Your task to perform on an android device: Search for flights from NYC to San Diego Image 0: 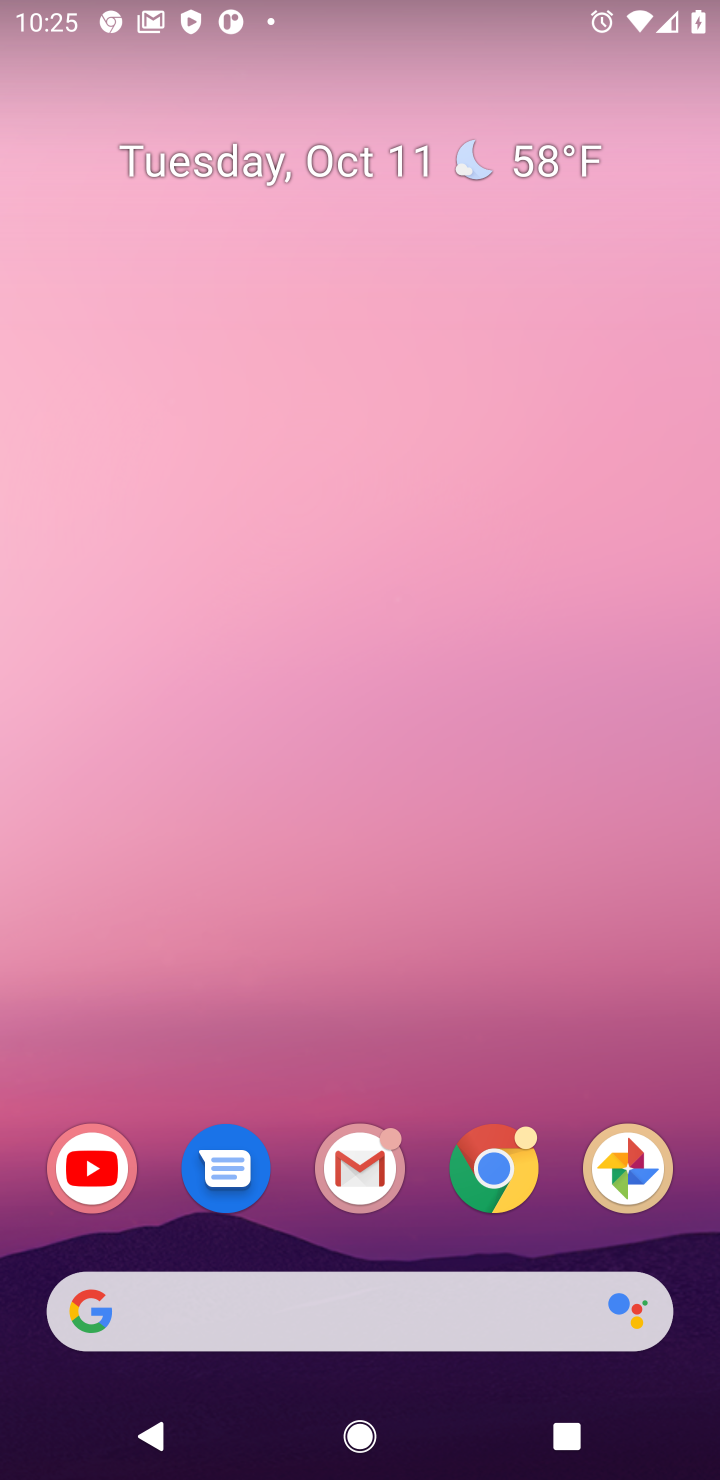
Step 0: click (469, 1188)
Your task to perform on an android device: Search for flights from NYC to San Diego Image 1: 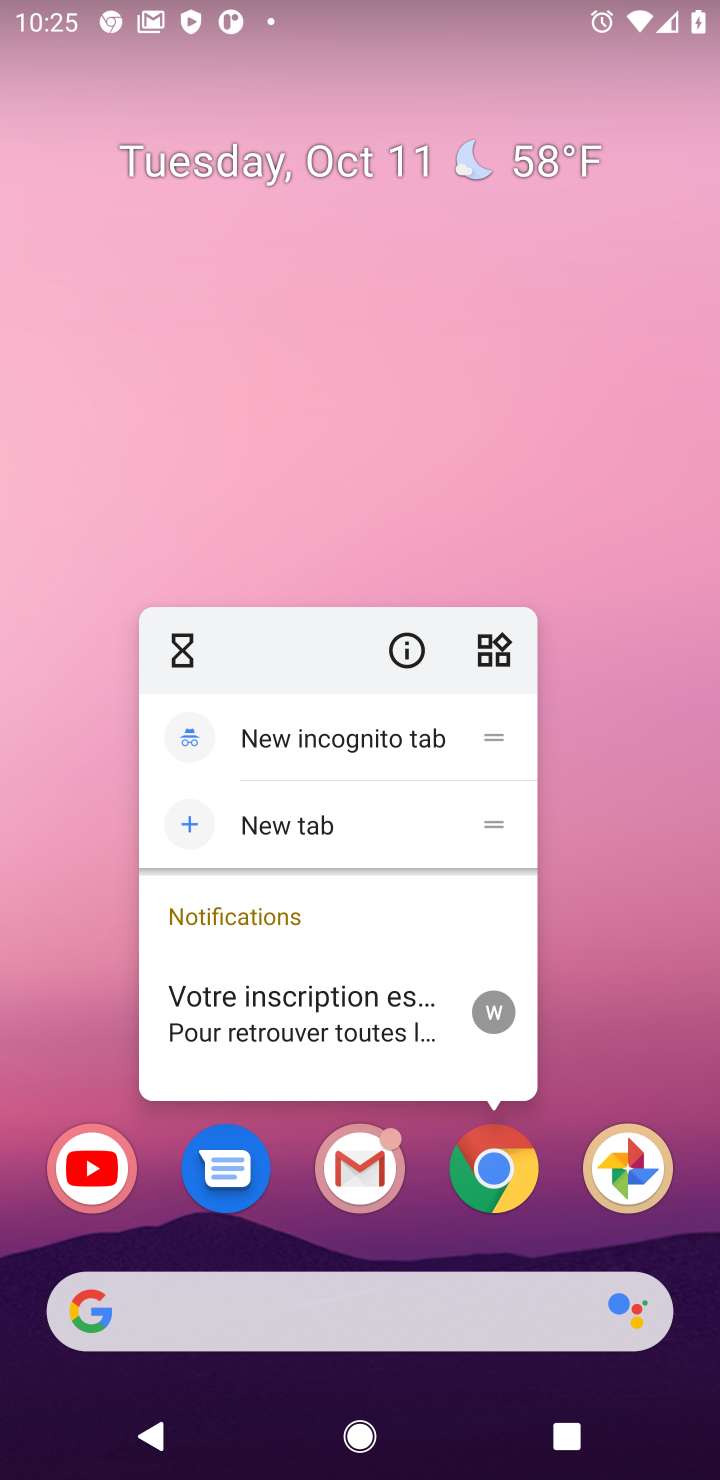
Step 1: press back button
Your task to perform on an android device: Search for flights from NYC to San Diego Image 2: 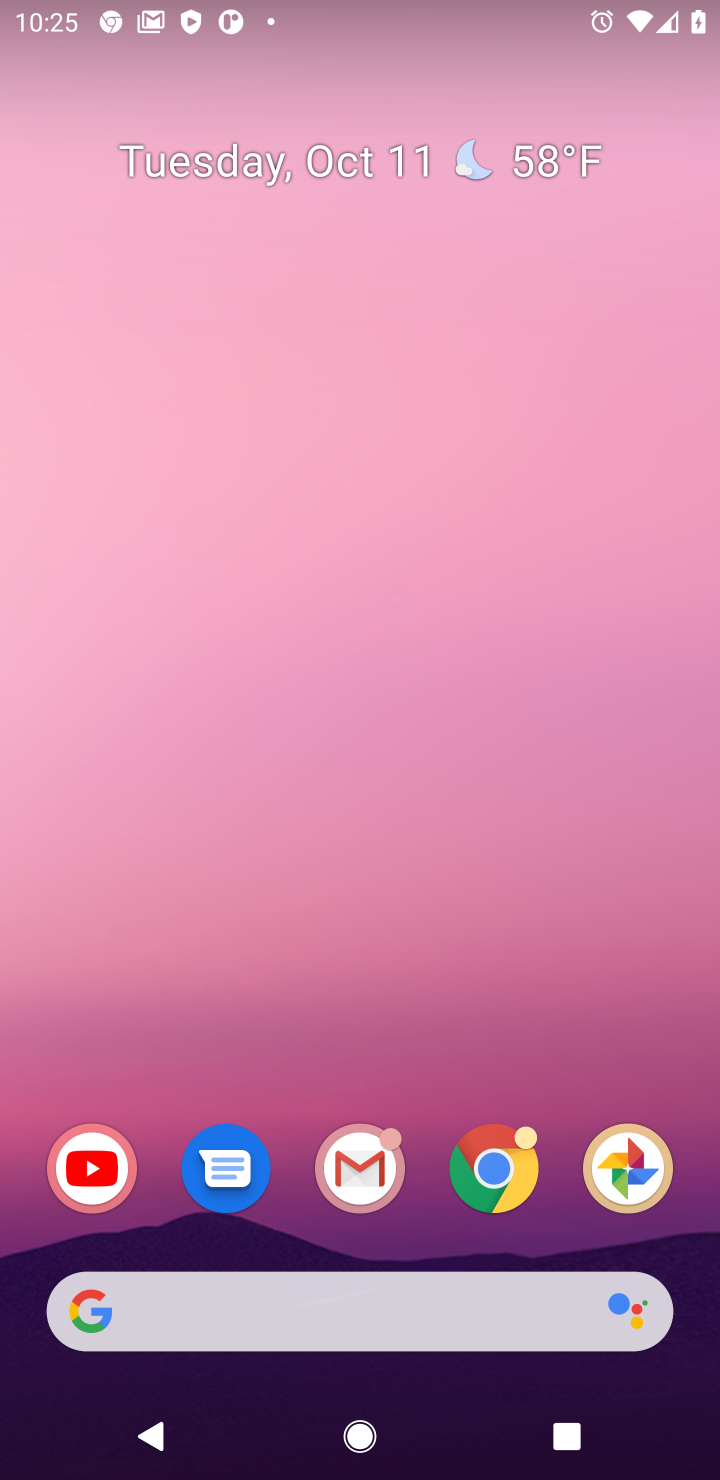
Step 2: press home button
Your task to perform on an android device: Search for flights from NYC to San Diego Image 3: 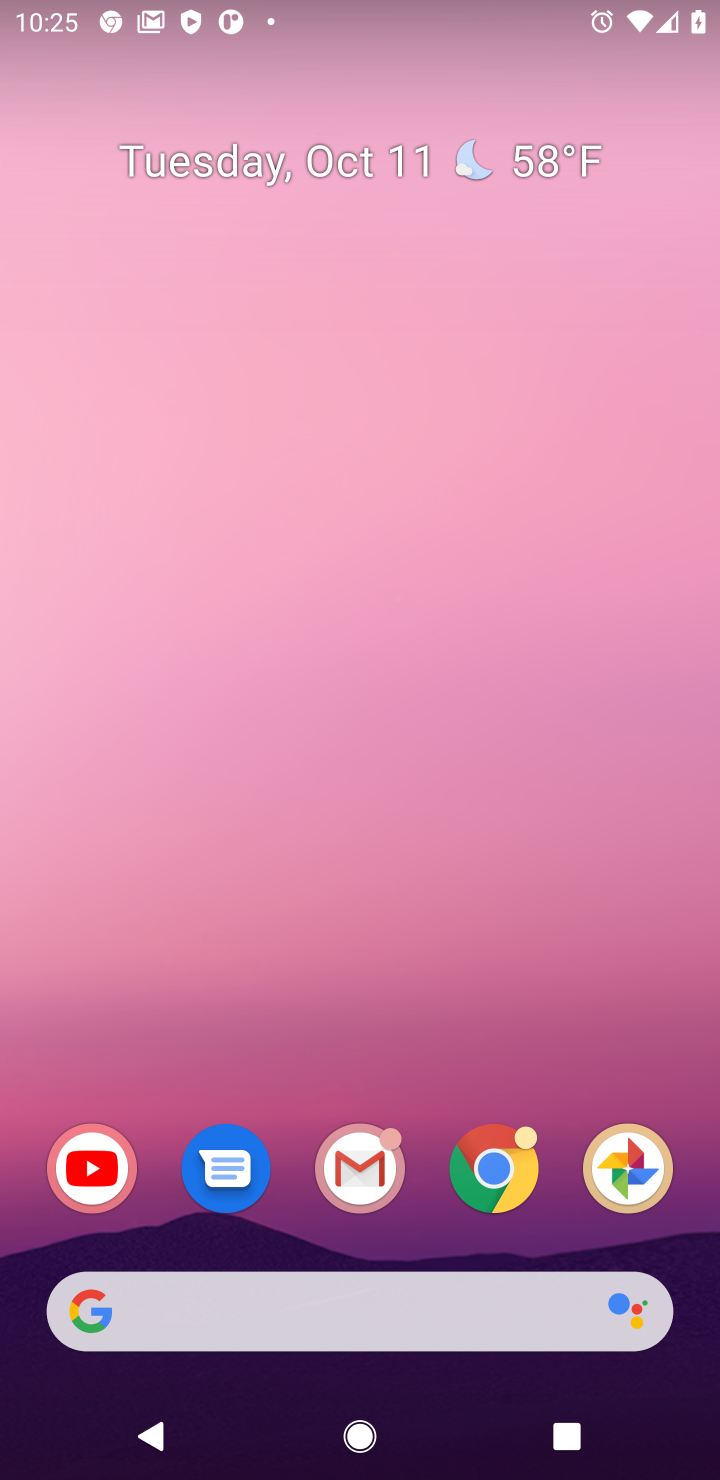
Step 3: click (505, 1198)
Your task to perform on an android device: Search for flights from NYC to San Diego Image 4: 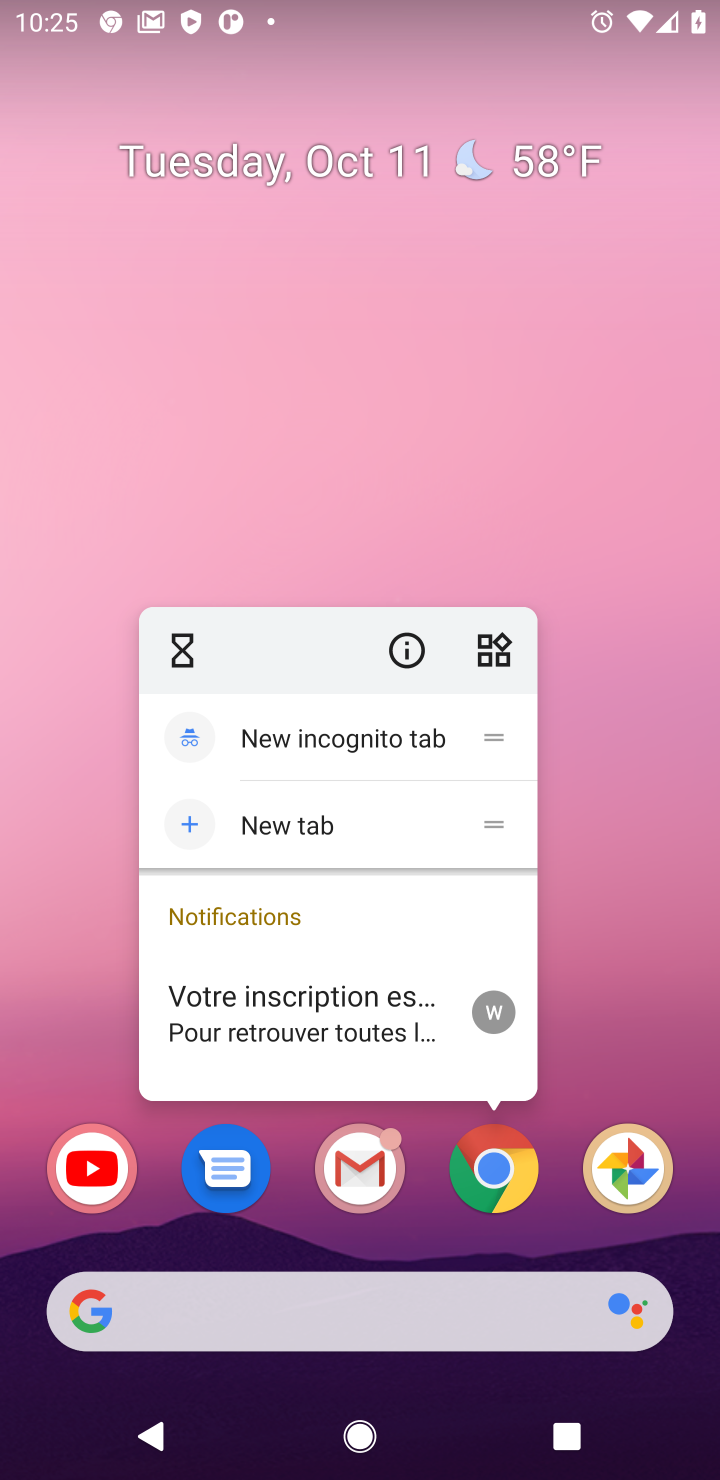
Step 4: click (536, 1136)
Your task to perform on an android device: Search for flights from NYC to San Diego Image 5: 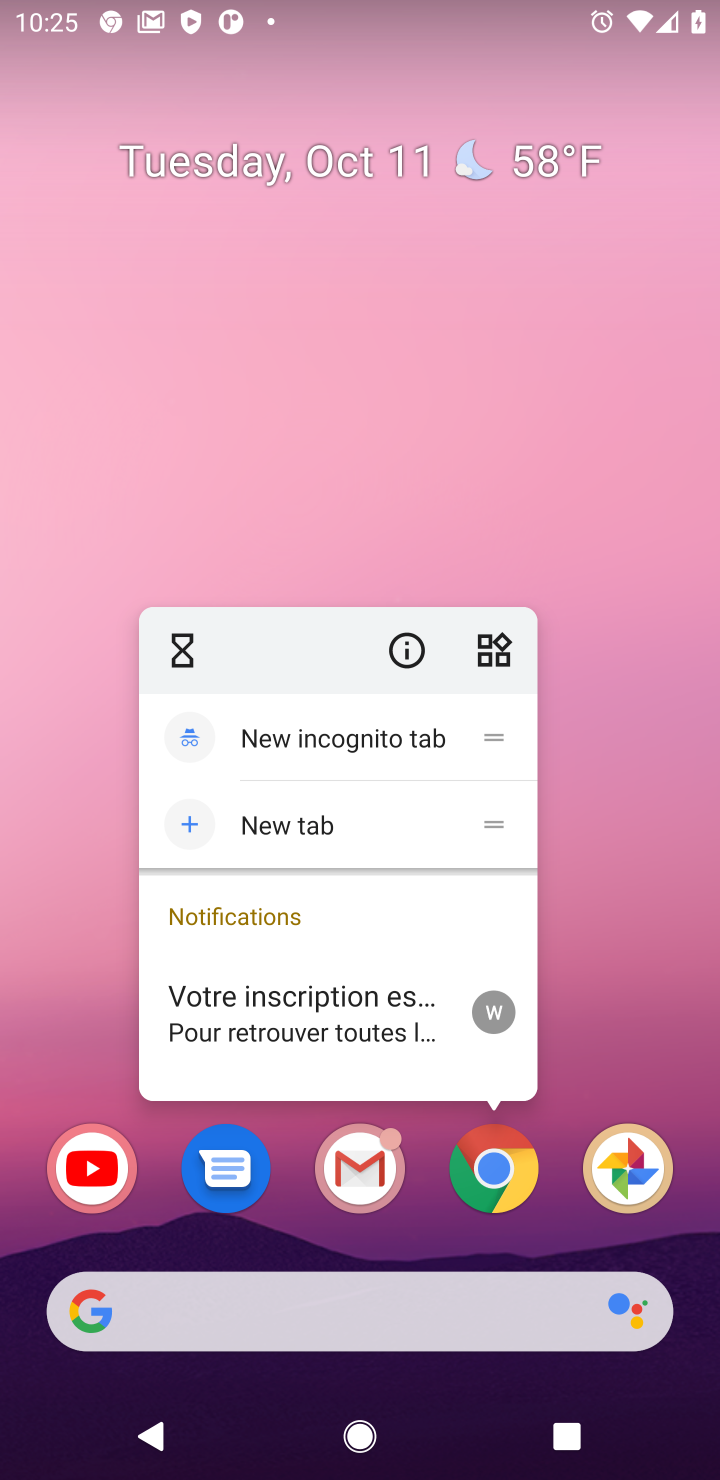
Step 5: press back button
Your task to perform on an android device: Search for flights from NYC to San Diego Image 6: 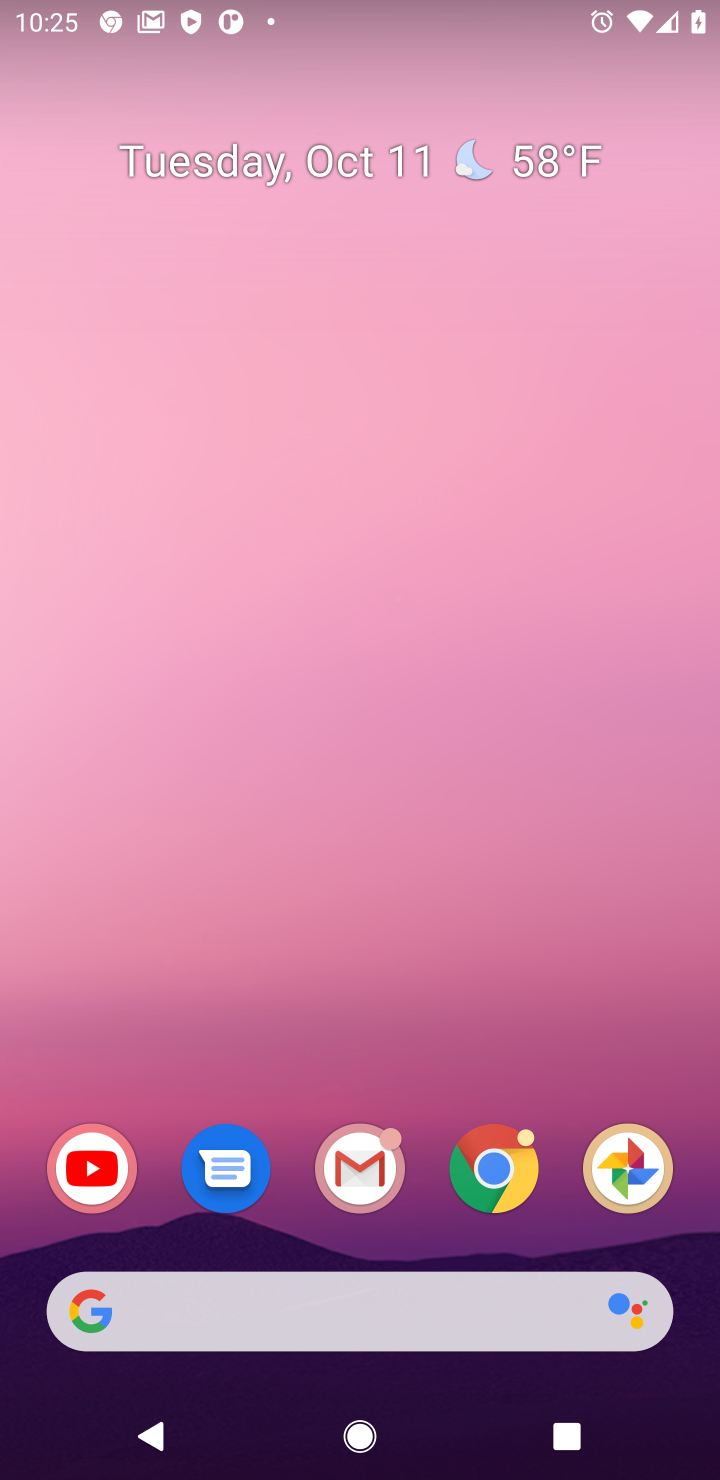
Step 6: press home button
Your task to perform on an android device: Search for flights from NYC to San Diego Image 7: 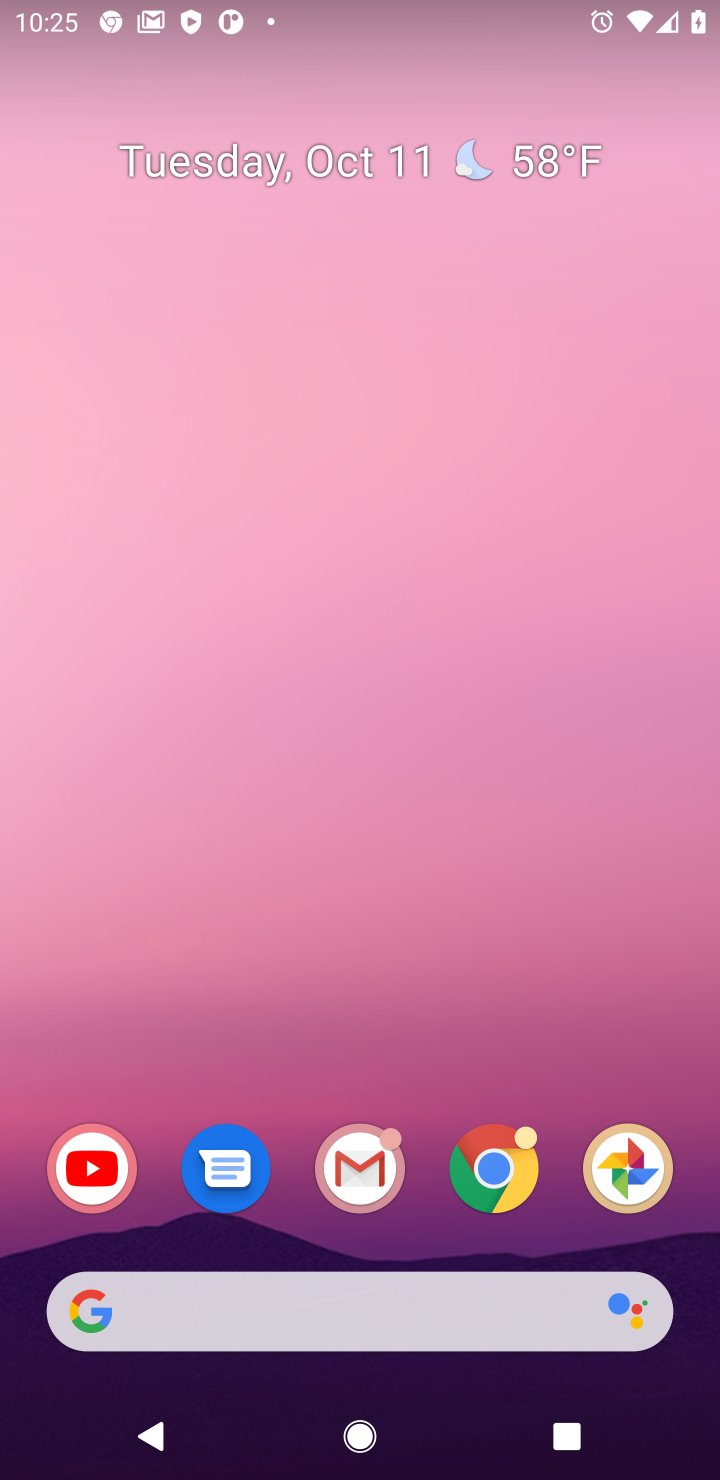
Step 7: click (504, 1174)
Your task to perform on an android device: Search for flights from NYC to San Diego Image 8: 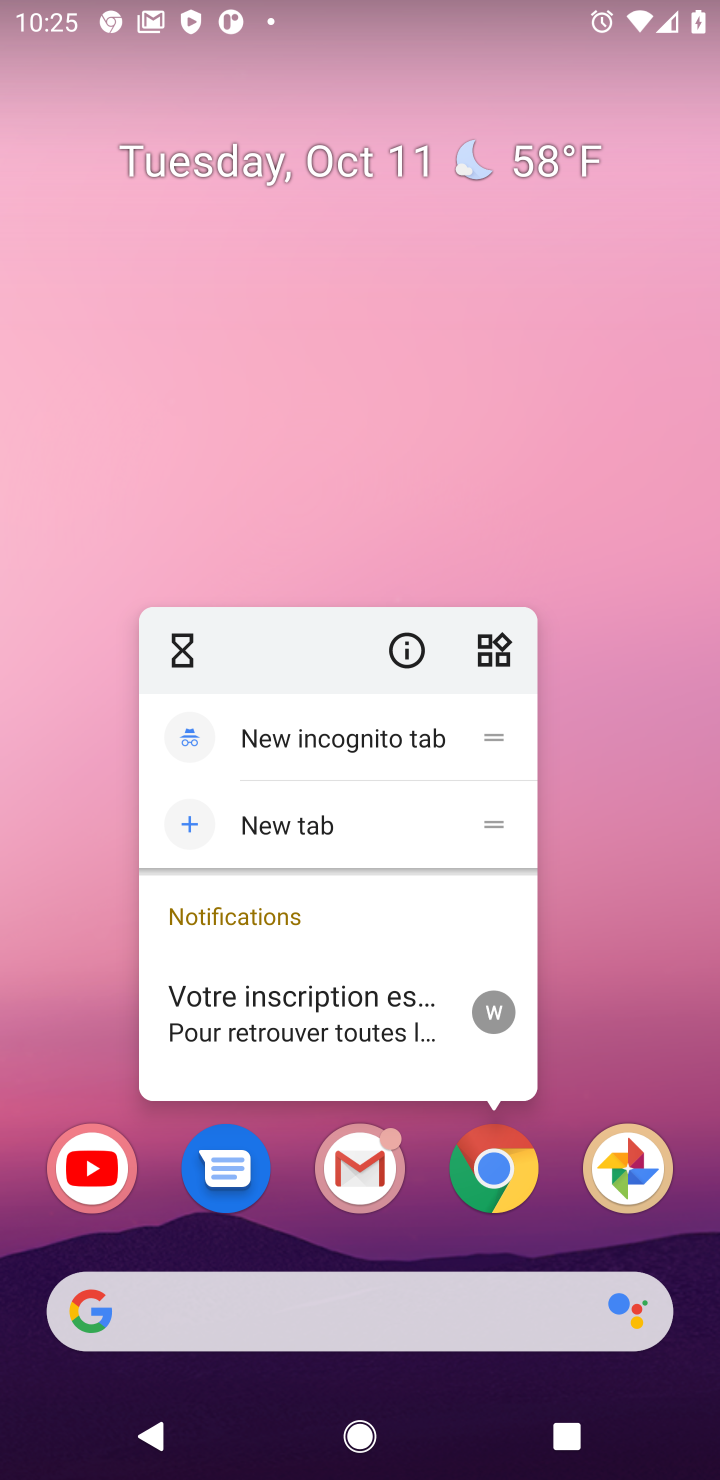
Step 8: click (480, 1162)
Your task to perform on an android device: Search for flights from NYC to San Diego Image 9: 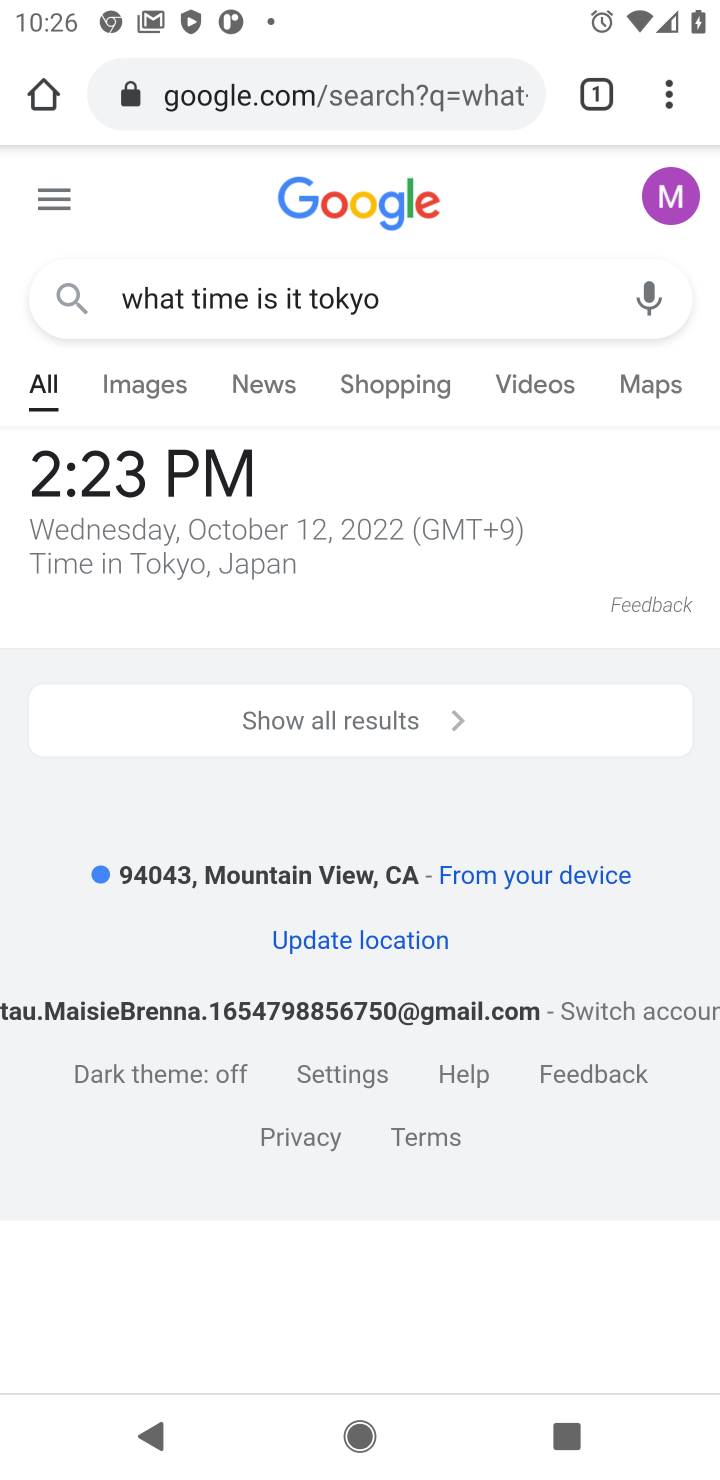
Step 9: click (407, 310)
Your task to perform on an android device: Search for flights from NYC to San Diego Image 10: 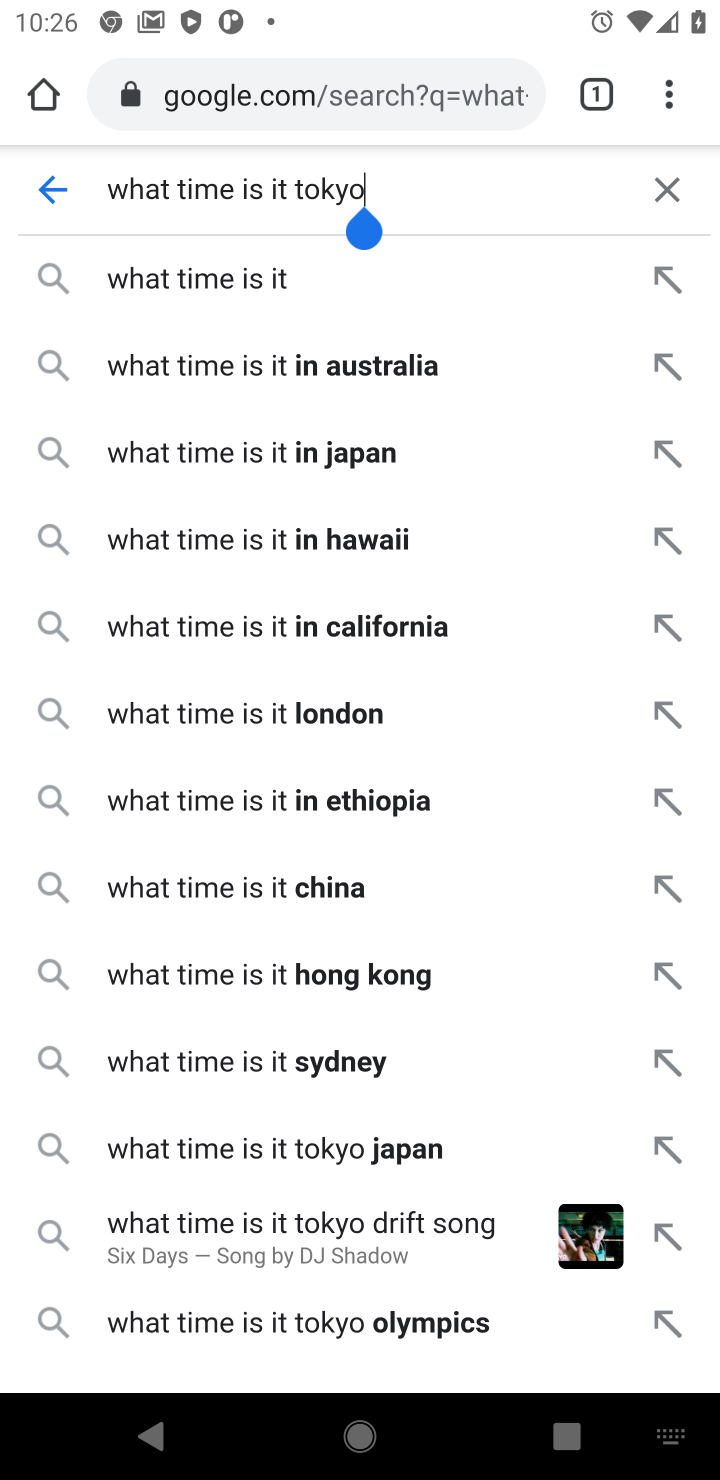
Step 10: click (661, 187)
Your task to perform on an android device: Search for flights from NYC to San Diego Image 11: 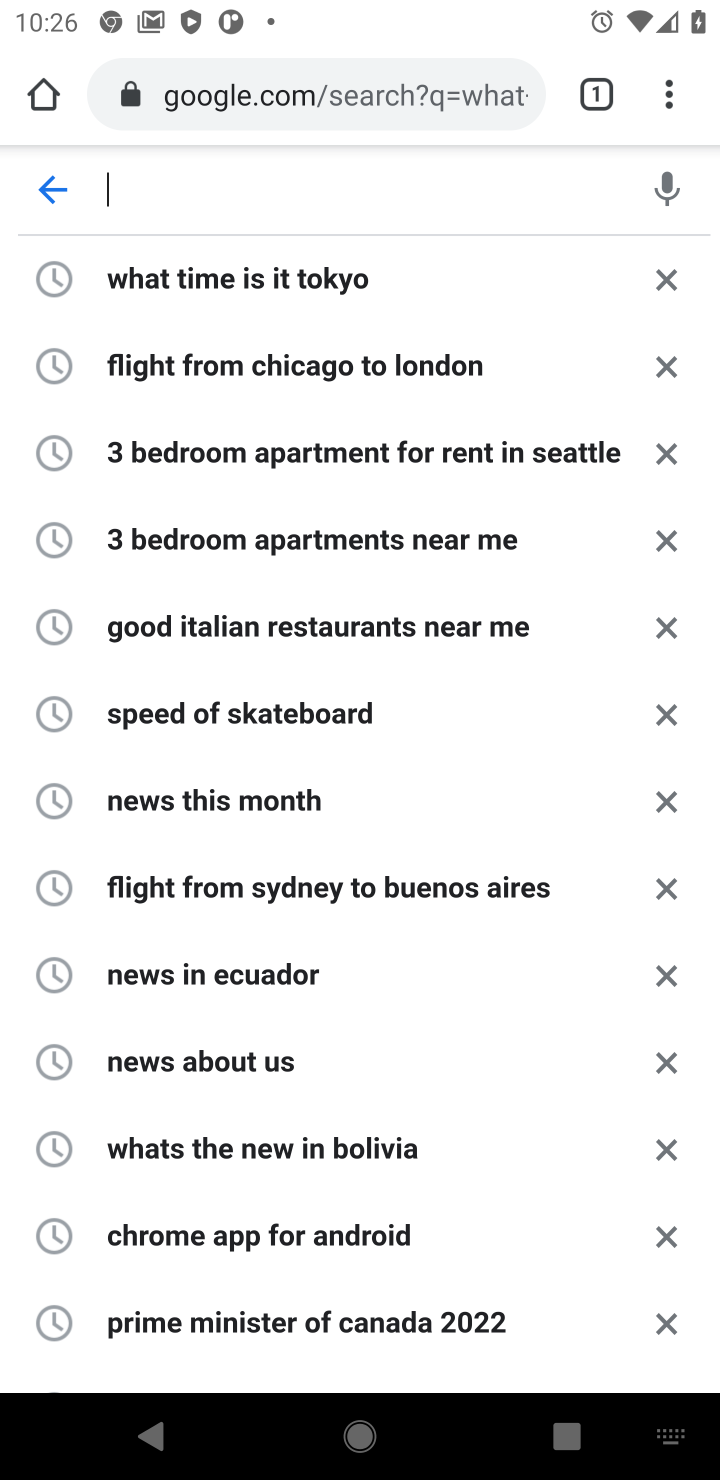
Step 11: type "flight from nyc to san diego"
Your task to perform on an android device: Search for flights from NYC to San Diego Image 12: 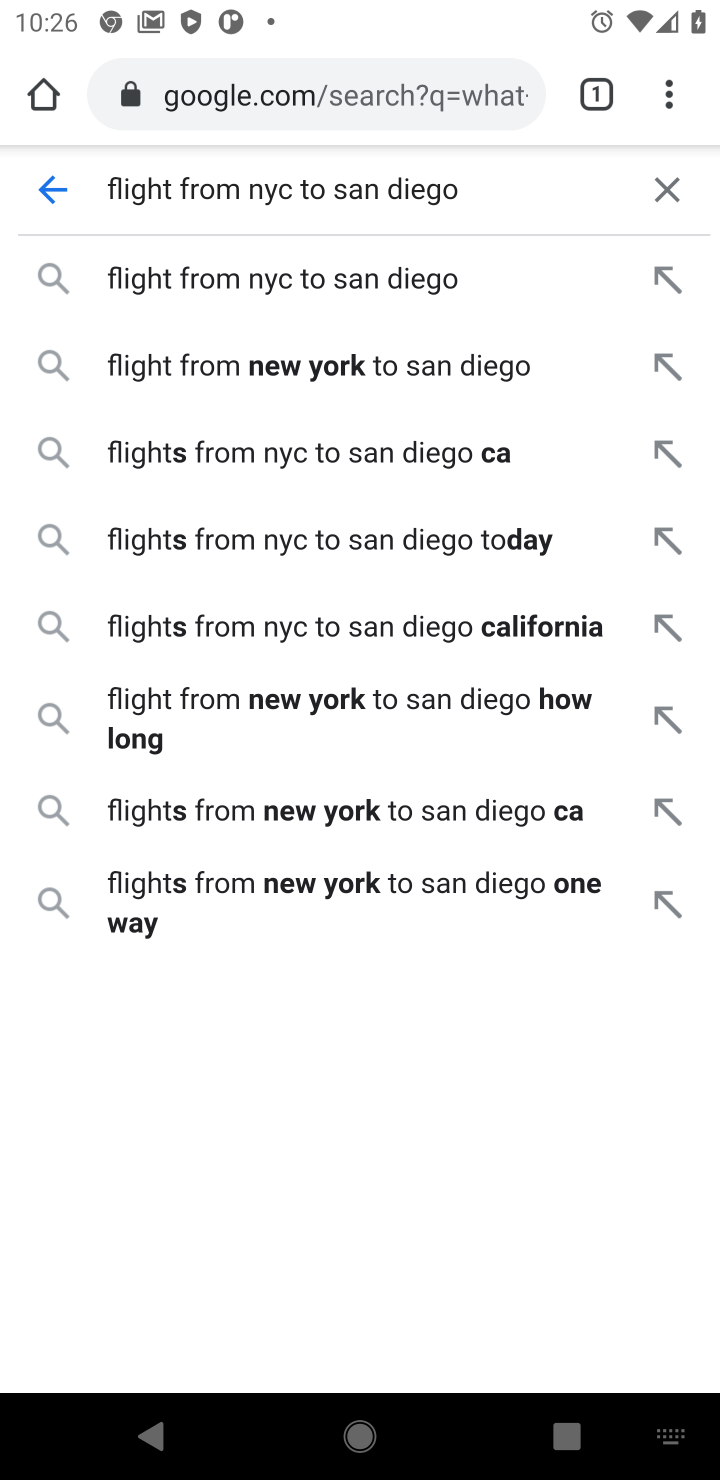
Step 12: click (412, 280)
Your task to perform on an android device: Search for flights from NYC to San Diego Image 13: 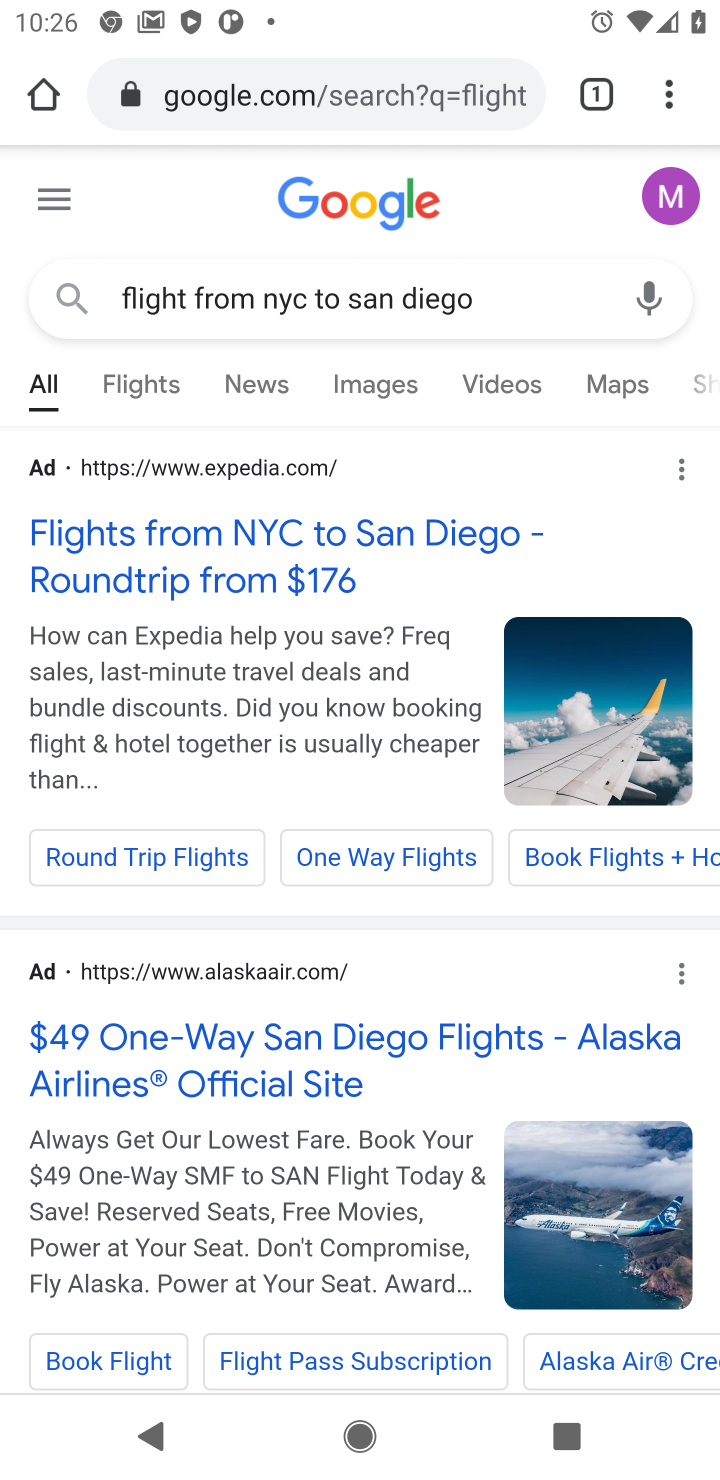
Step 13: click (187, 537)
Your task to perform on an android device: Search for flights from NYC to San Diego Image 14: 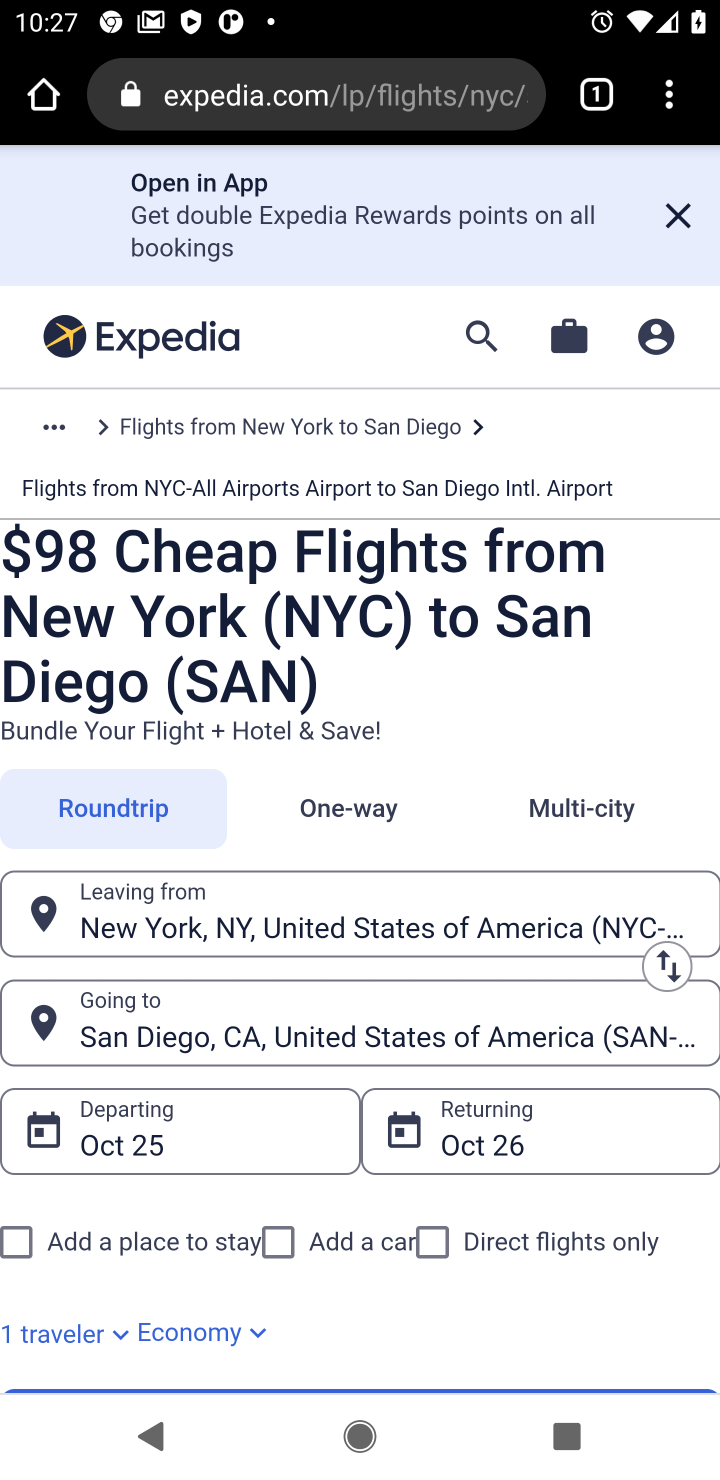
Step 14: drag from (590, 1193) to (578, 564)
Your task to perform on an android device: Search for flights from NYC to San Diego Image 15: 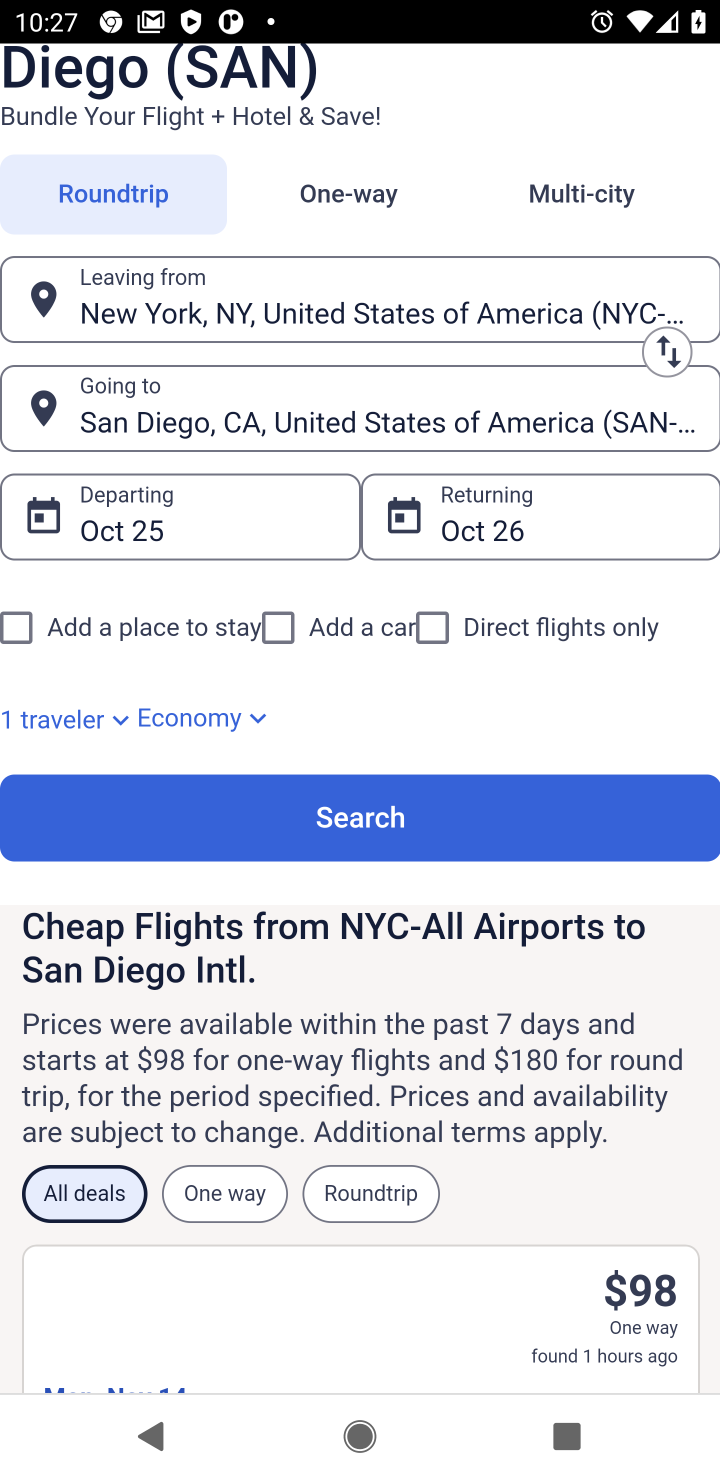
Step 15: click (426, 1132)
Your task to perform on an android device: Search for flights from NYC to San Diego Image 16: 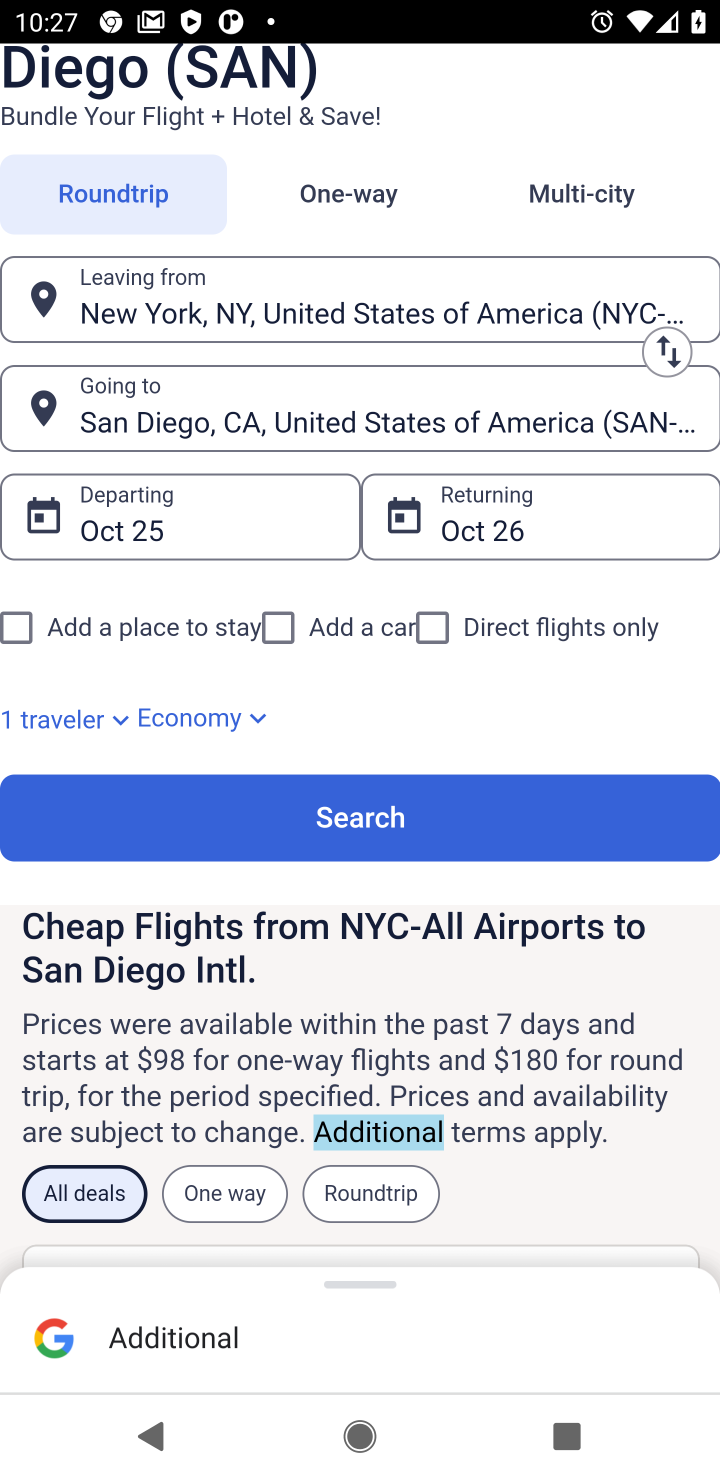
Step 16: click (442, 842)
Your task to perform on an android device: Search for flights from NYC to San Diego Image 17: 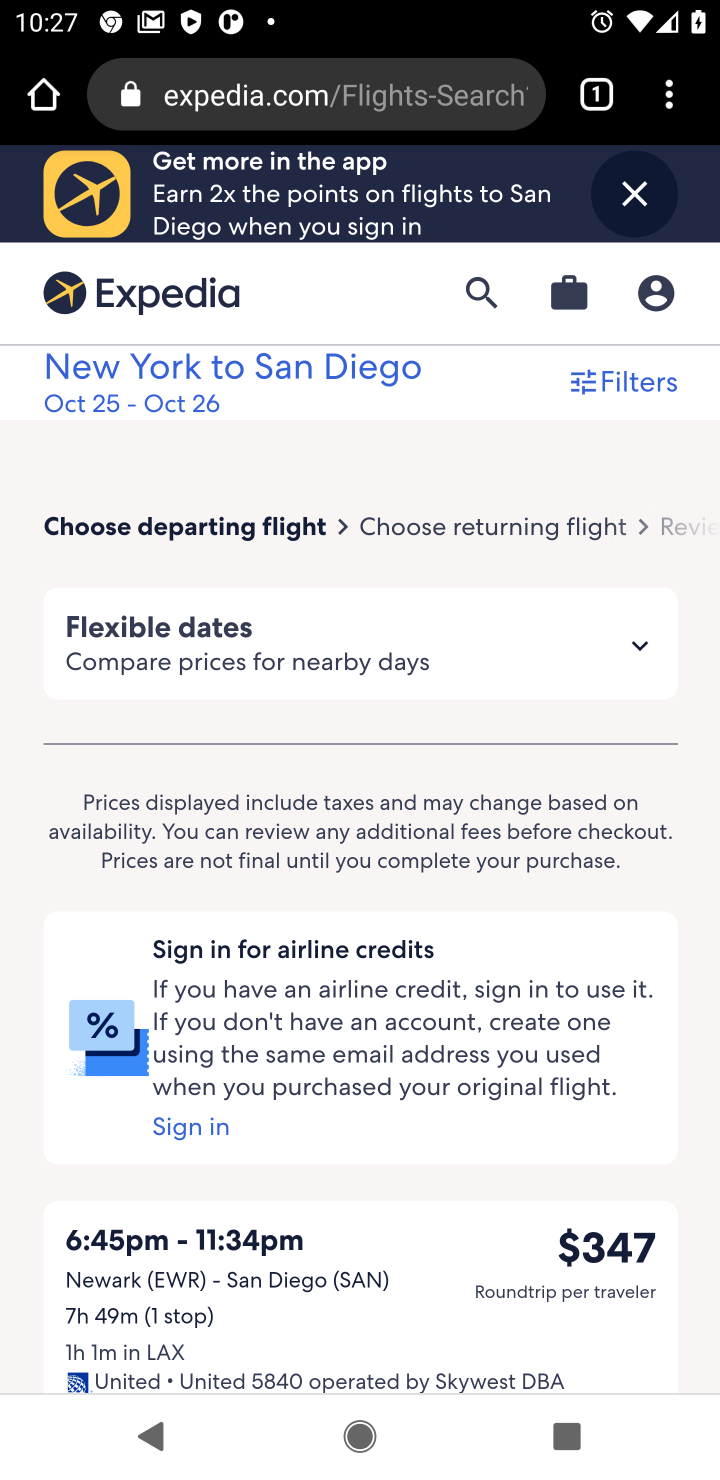
Step 17: task complete